Your task to perform on an android device: Add razer thresher to the cart on walmart Image 0: 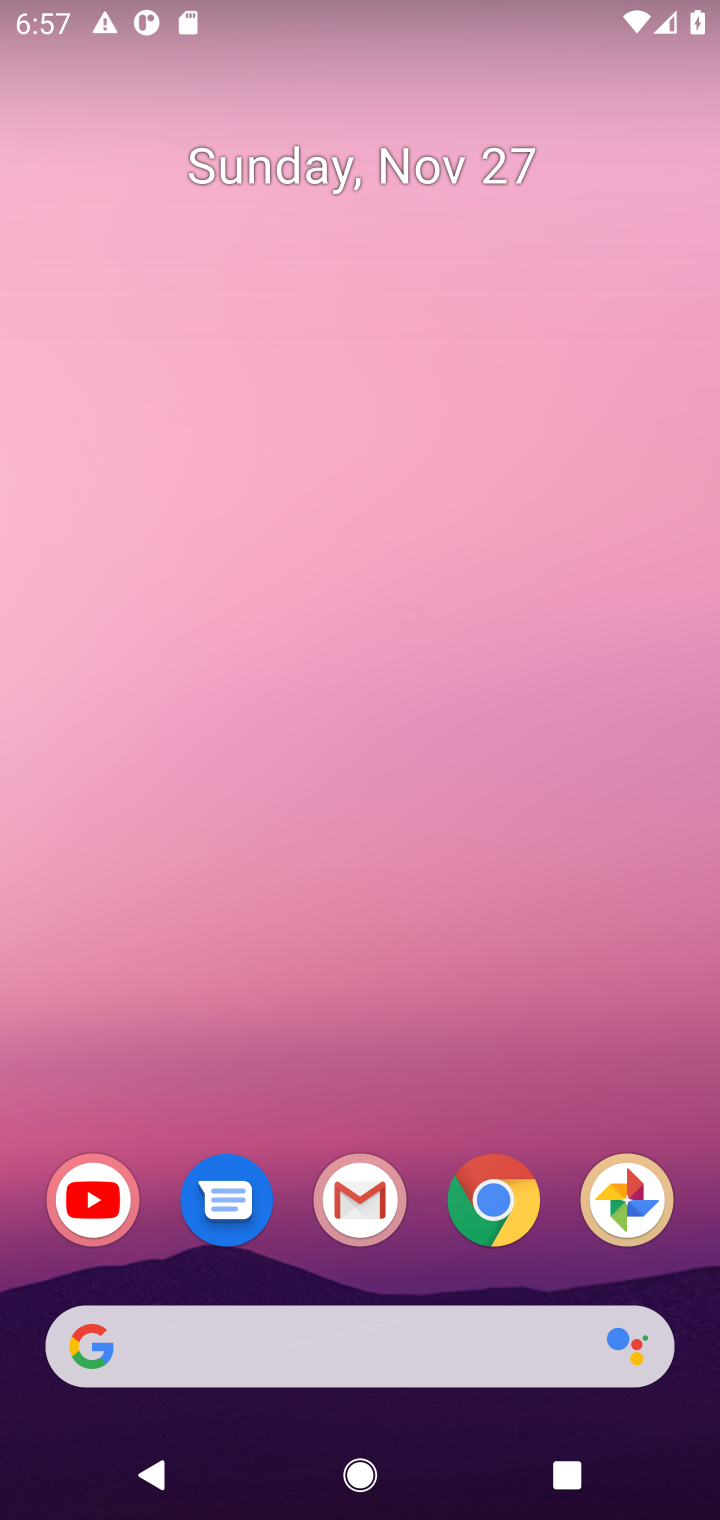
Step 0: click (518, 1213)
Your task to perform on an android device: Add razer thresher to the cart on walmart Image 1: 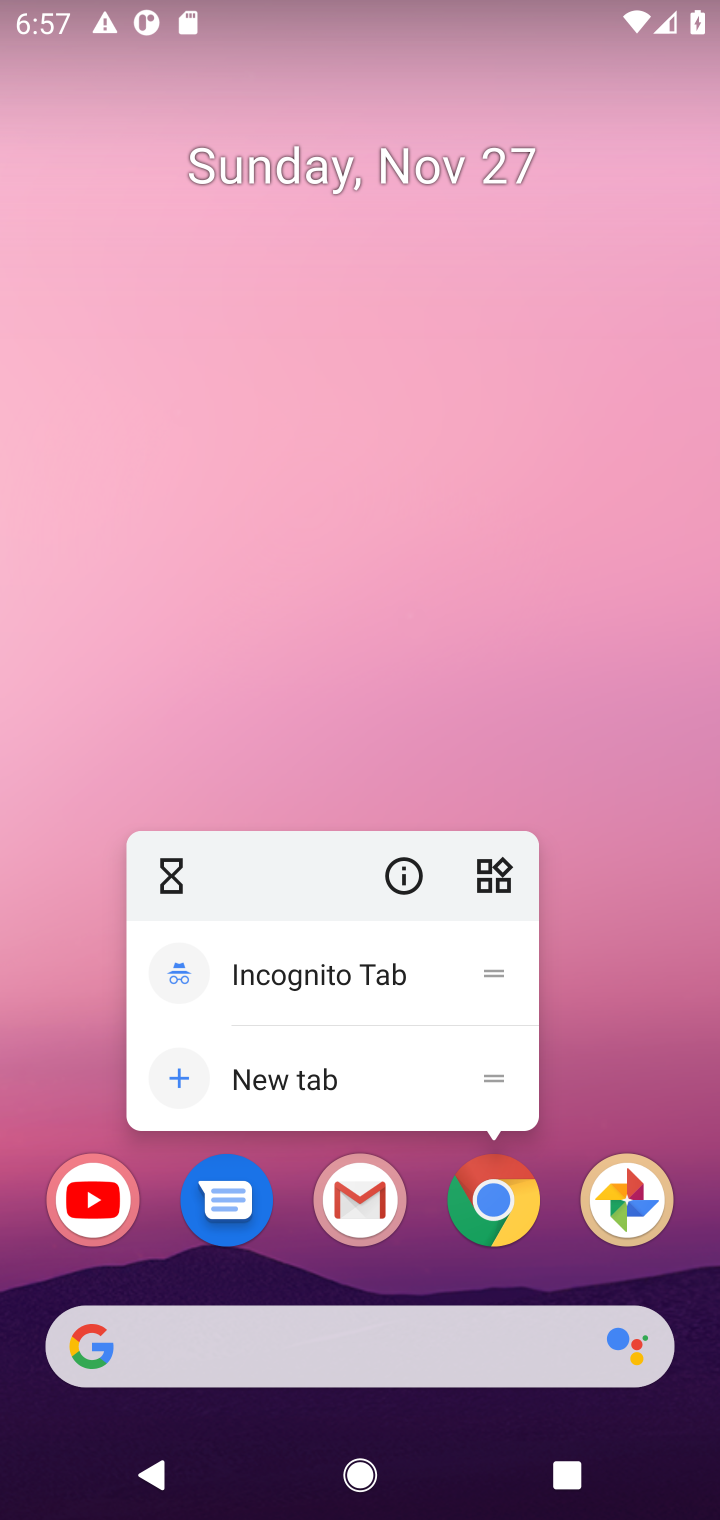
Step 1: click (505, 1210)
Your task to perform on an android device: Add razer thresher to the cart on walmart Image 2: 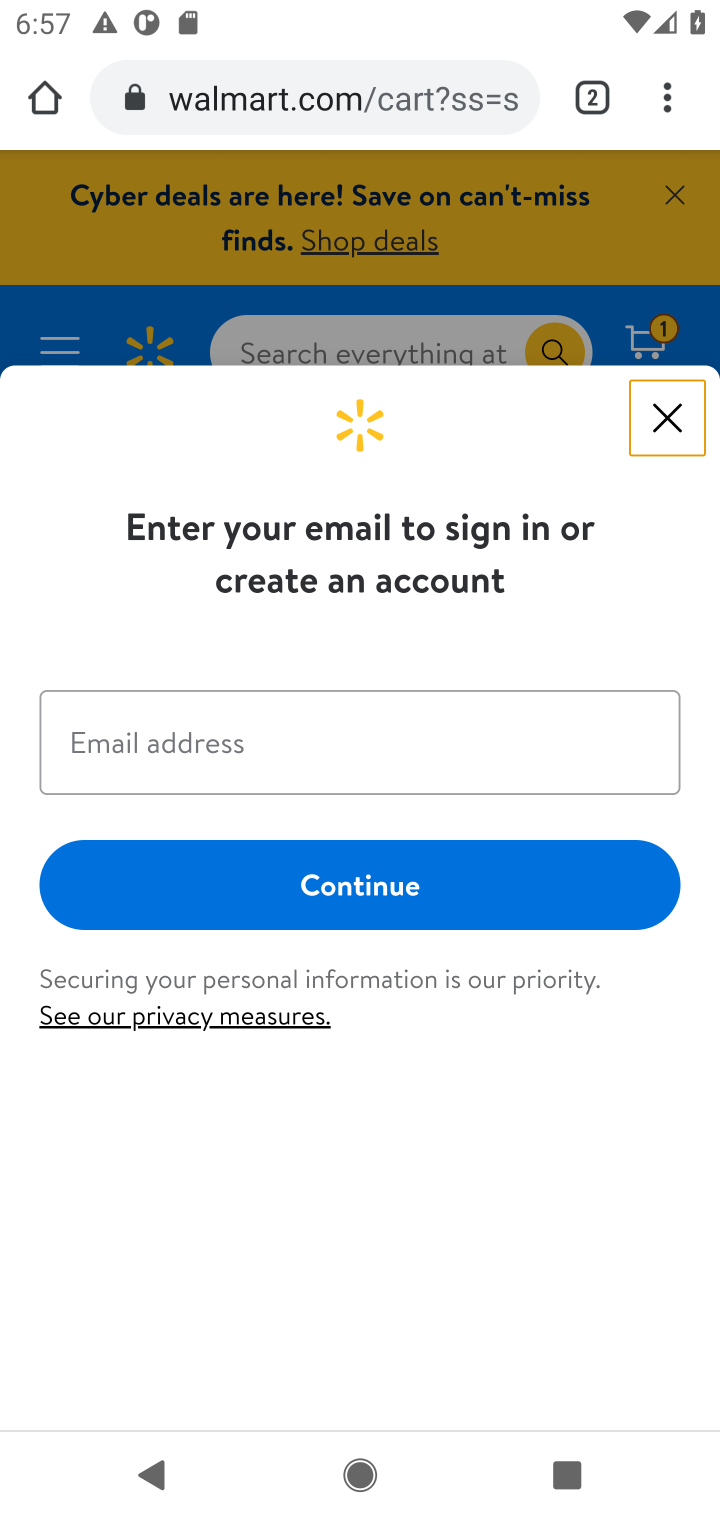
Step 2: click (674, 424)
Your task to perform on an android device: Add razer thresher to the cart on walmart Image 3: 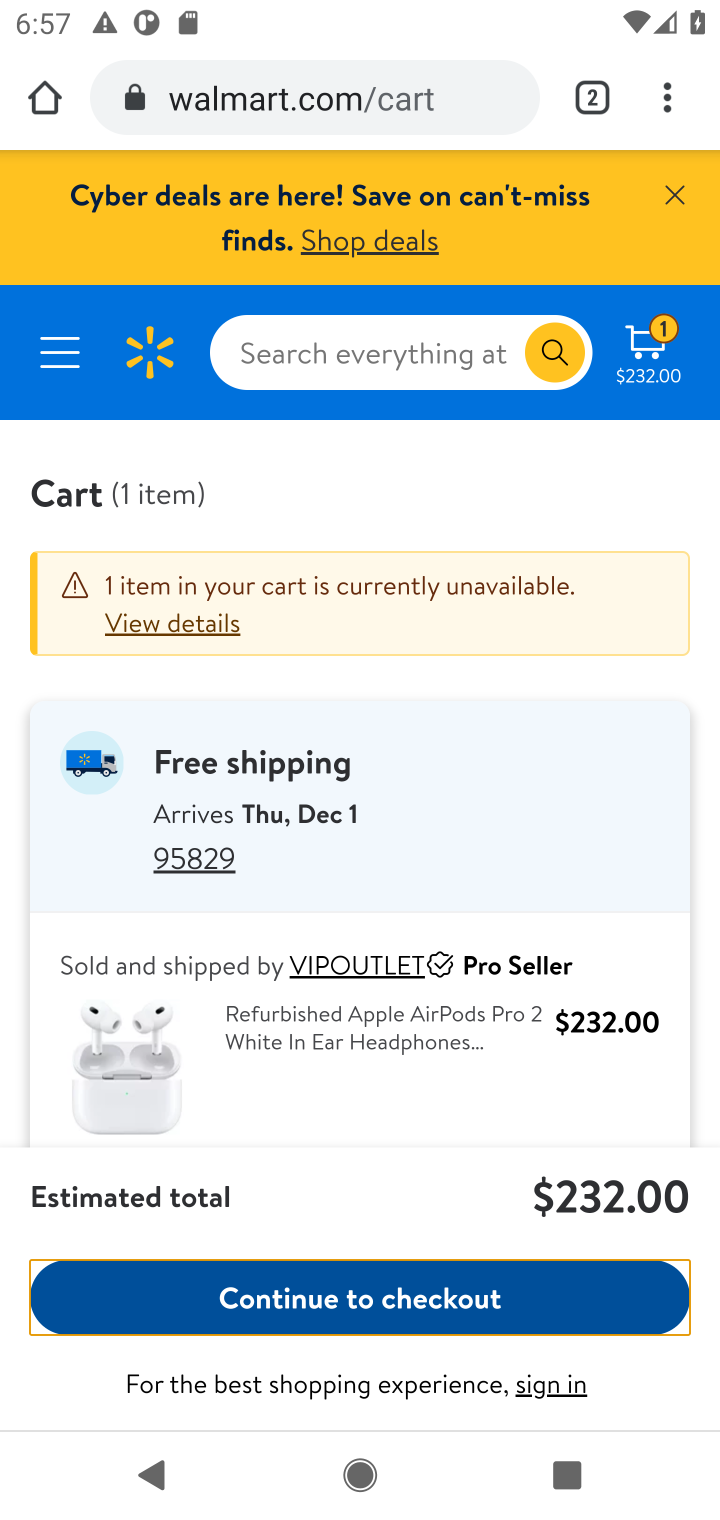
Step 3: click (324, 353)
Your task to perform on an android device: Add razer thresher to the cart on walmart Image 4: 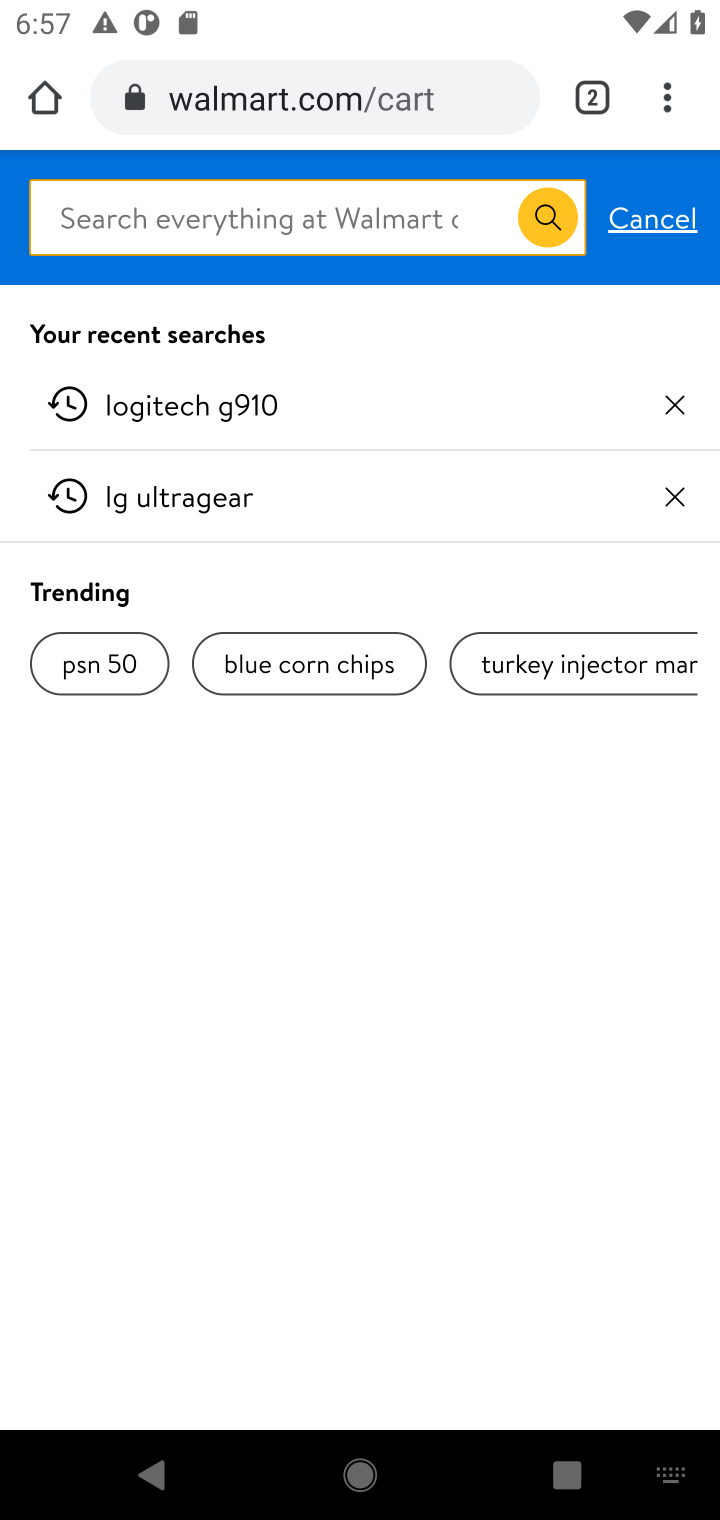
Step 4: type "razer thresher"
Your task to perform on an android device: Add razer thresher to the cart on walmart Image 5: 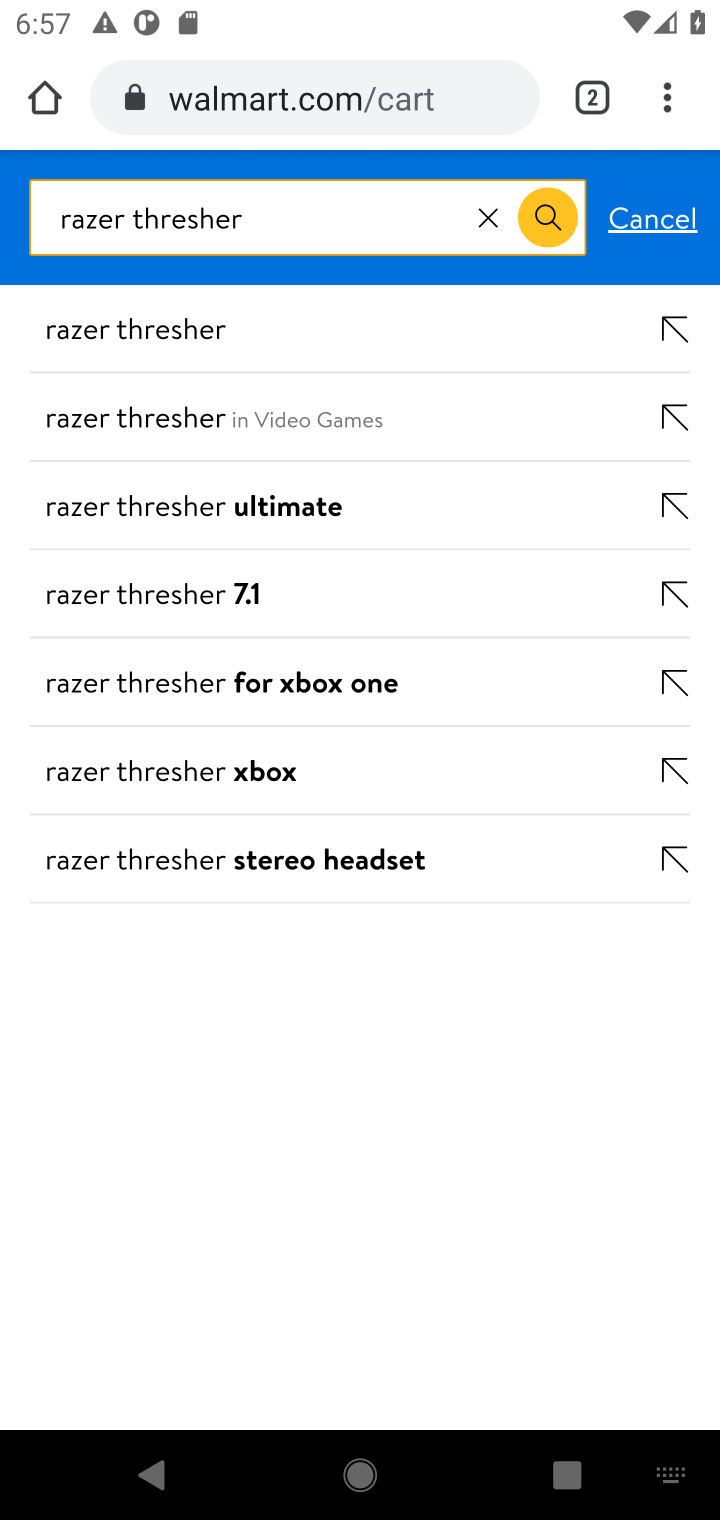
Step 5: click (175, 337)
Your task to perform on an android device: Add razer thresher to the cart on walmart Image 6: 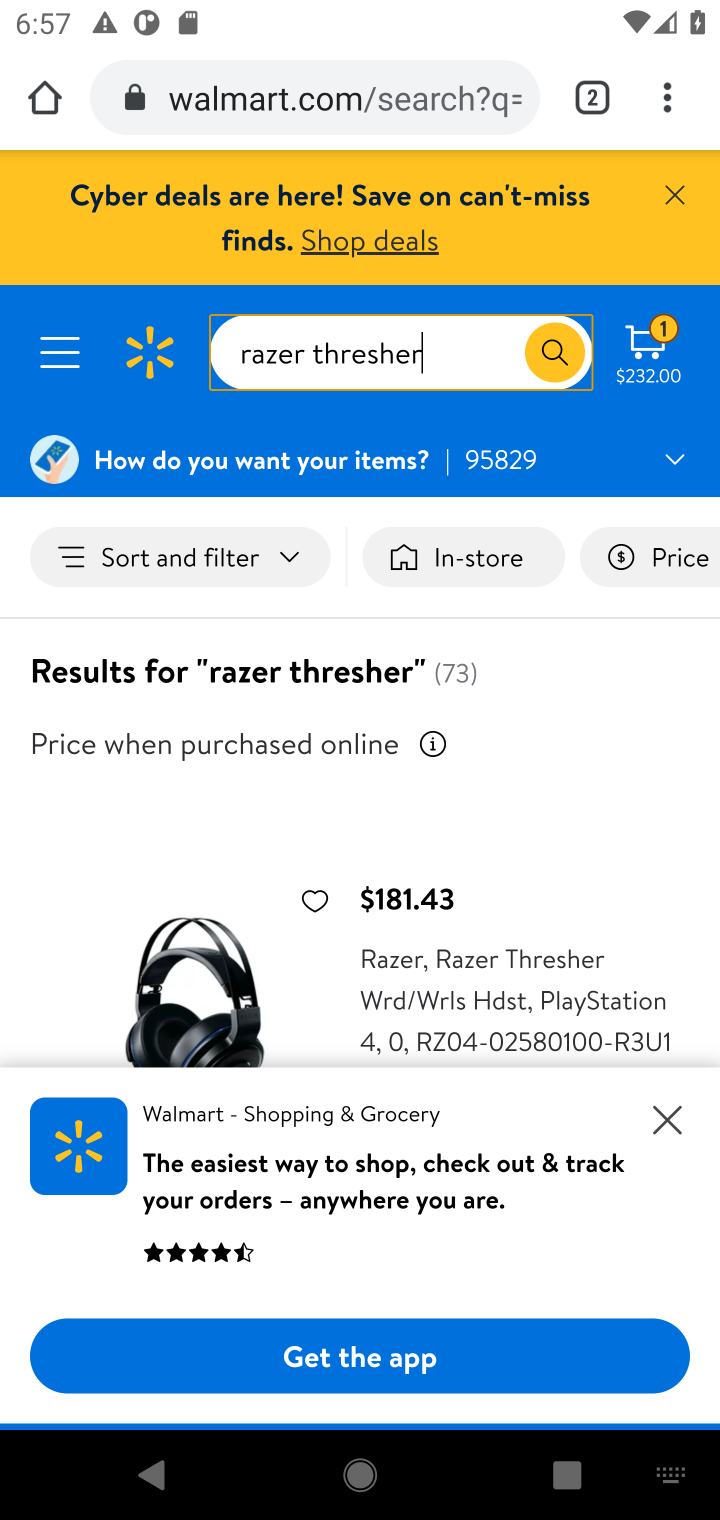
Step 6: drag from (338, 900) to (331, 533)
Your task to perform on an android device: Add razer thresher to the cart on walmart Image 7: 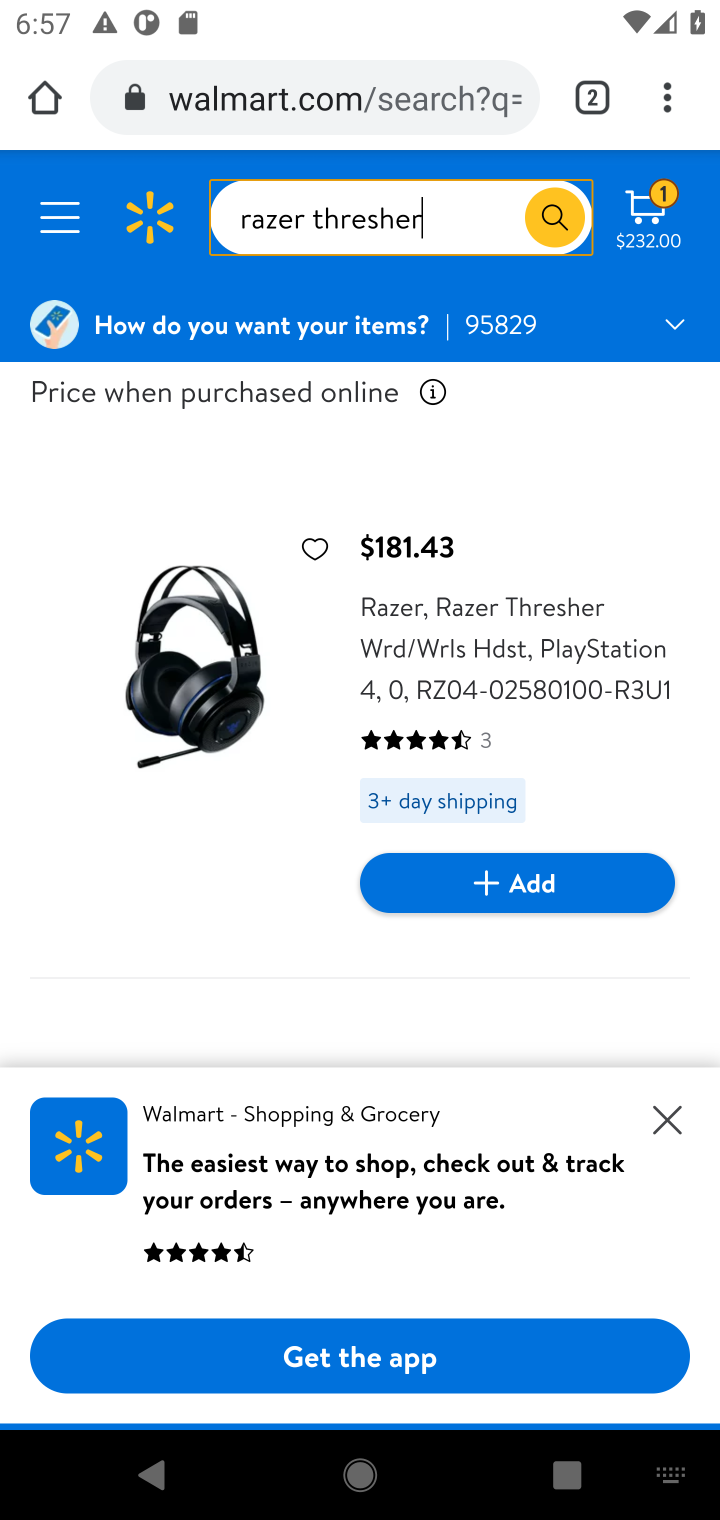
Step 7: click (506, 881)
Your task to perform on an android device: Add razer thresher to the cart on walmart Image 8: 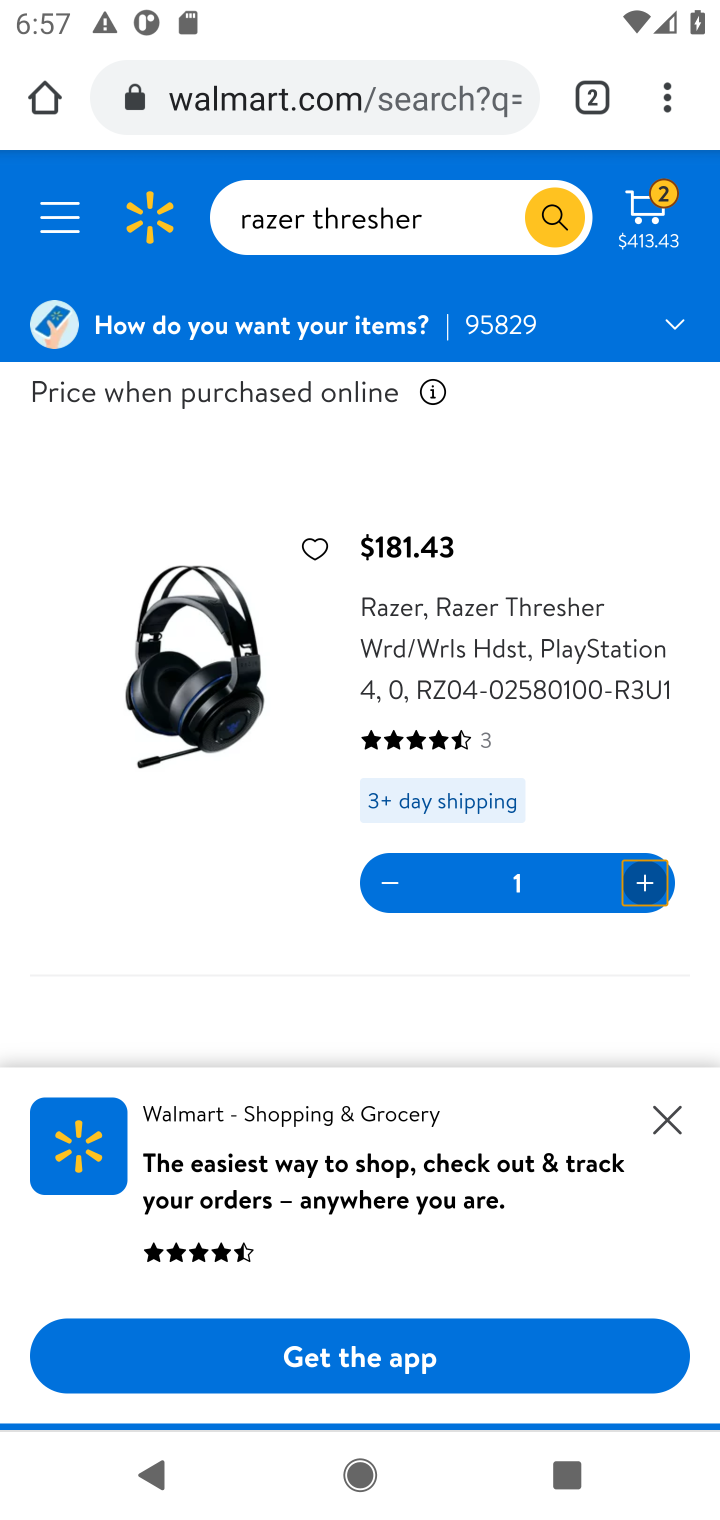
Step 8: task complete